Your task to perform on an android device: check the backup settings in the google photos Image 0: 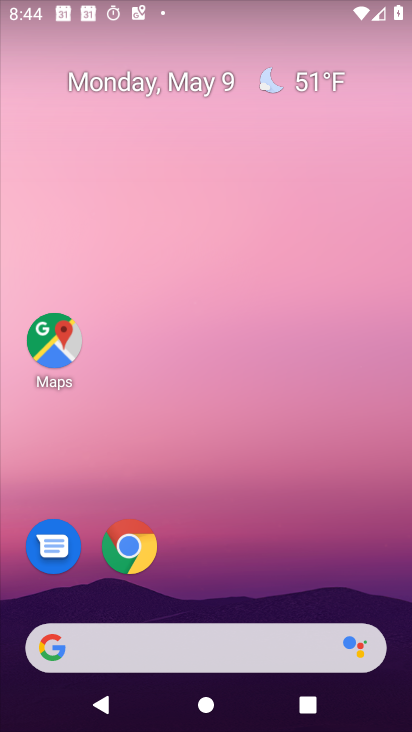
Step 0: drag from (264, 550) to (258, 213)
Your task to perform on an android device: check the backup settings in the google photos Image 1: 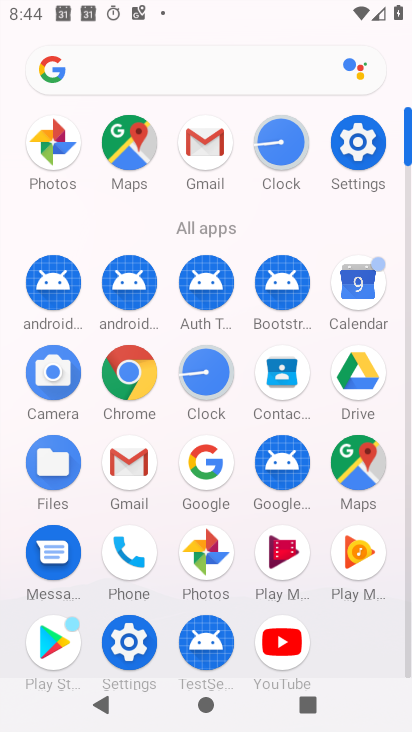
Step 1: click (56, 145)
Your task to perform on an android device: check the backup settings in the google photos Image 2: 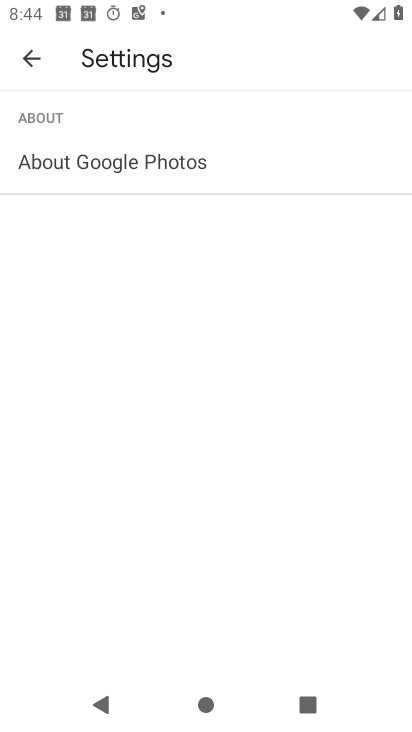
Step 2: click (24, 59)
Your task to perform on an android device: check the backup settings in the google photos Image 3: 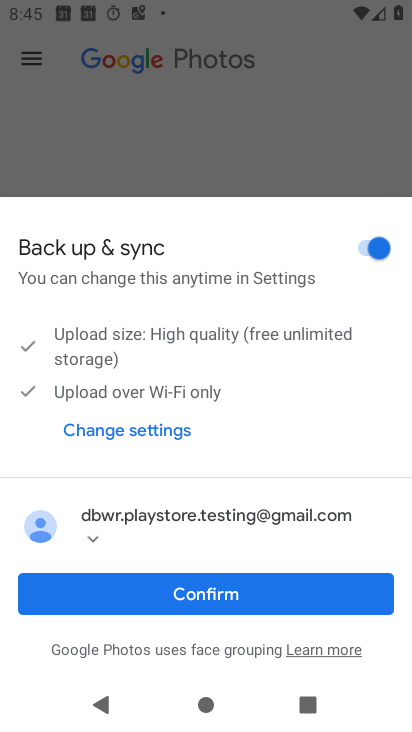
Step 3: click (290, 595)
Your task to perform on an android device: check the backup settings in the google photos Image 4: 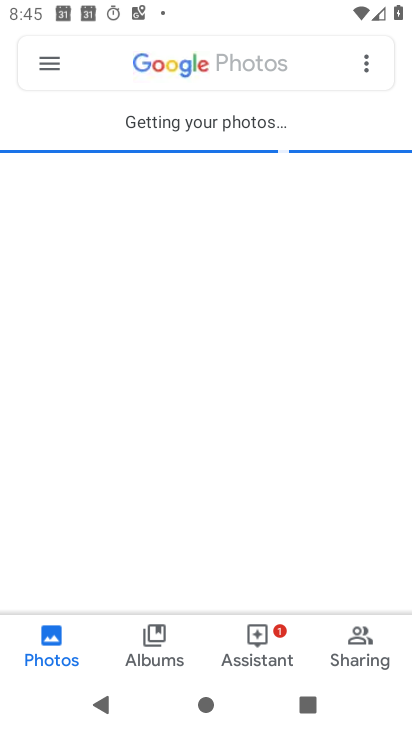
Step 4: click (51, 57)
Your task to perform on an android device: check the backup settings in the google photos Image 5: 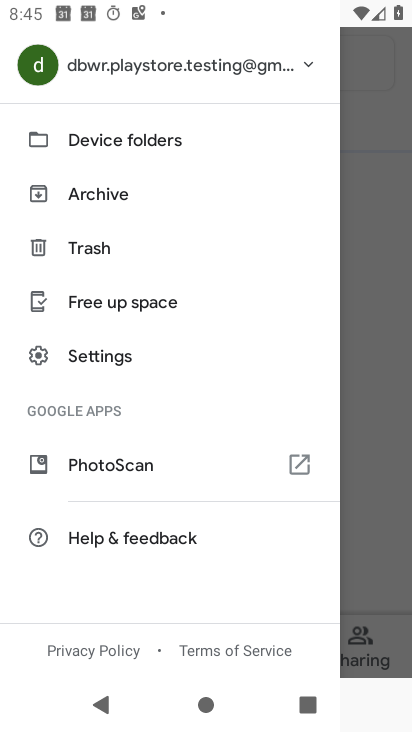
Step 5: click (129, 59)
Your task to perform on an android device: check the backup settings in the google photos Image 6: 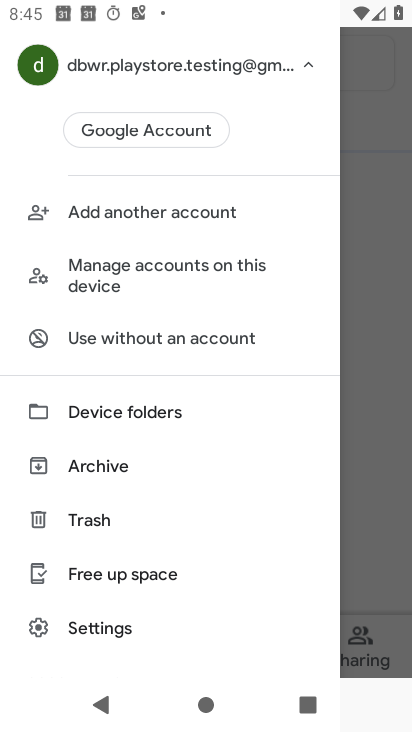
Step 6: drag from (220, 587) to (223, 171)
Your task to perform on an android device: check the backup settings in the google photos Image 7: 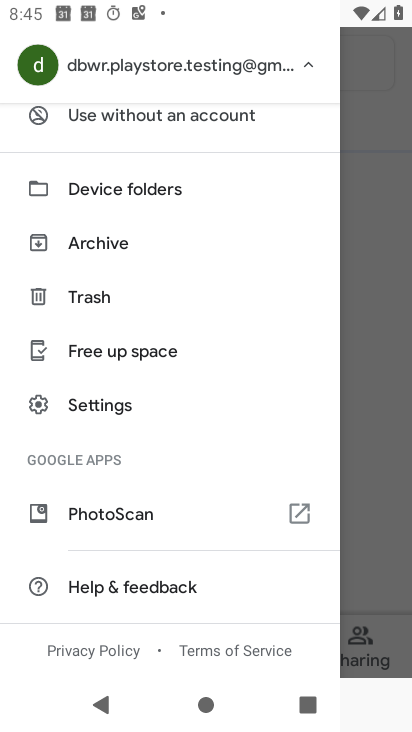
Step 7: click (73, 401)
Your task to perform on an android device: check the backup settings in the google photos Image 8: 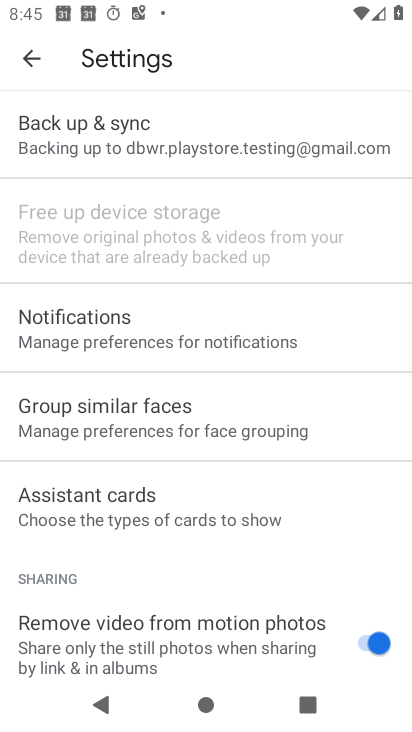
Step 8: click (66, 127)
Your task to perform on an android device: check the backup settings in the google photos Image 9: 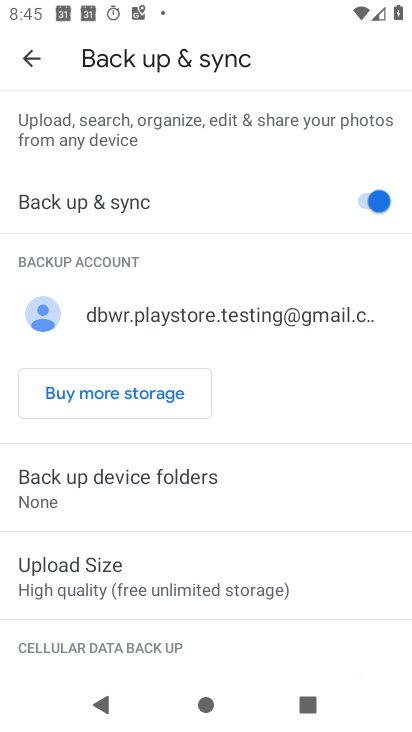
Step 9: task complete